Your task to perform on an android device: Open Google Chrome and click the shortcut for Amazon.com Image 0: 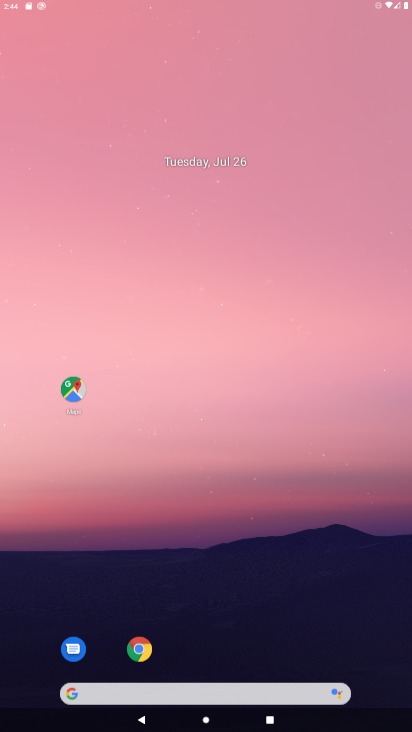
Step 0: click (139, 662)
Your task to perform on an android device: Open Google Chrome and click the shortcut for Amazon.com Image 1: 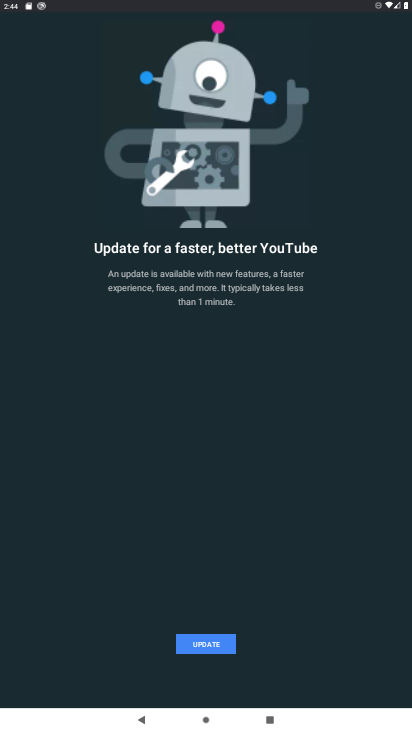
Step 1: press home button
Your task to perform on an android device: Open Google Chrome and click the shortcut for Amazon.com Image 2: 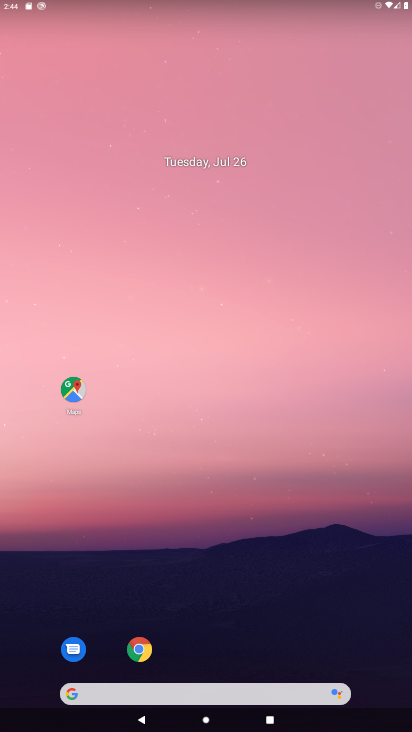
Step 2: click (129, 650)
Your task to perform on an android device: Open Google Chrome and click the shortcut for Amazon.com Image 3: 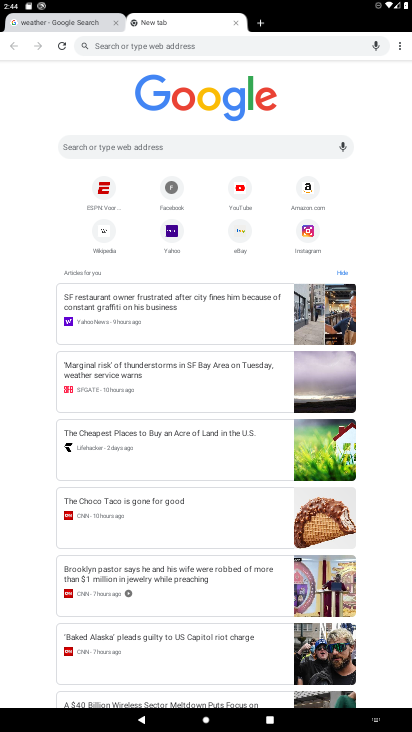
Step 3: click (308, 190)
Your task to perform on an android device: Open Google Chrome and click the shortcut for Amazon.com Image 4: 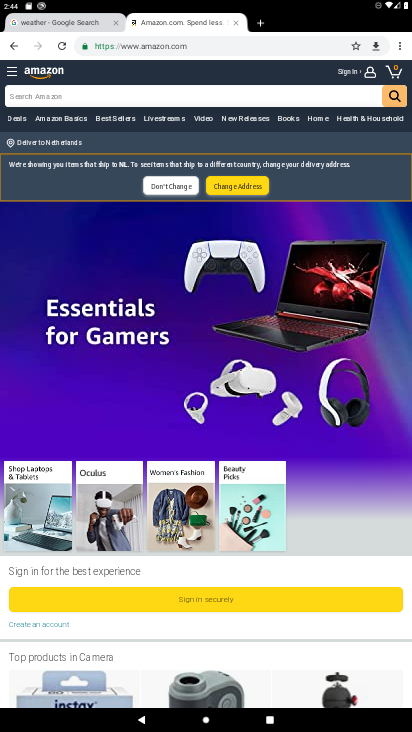
Step 4: task complete